Your task to perform on an android device: check out phone information Image 0: 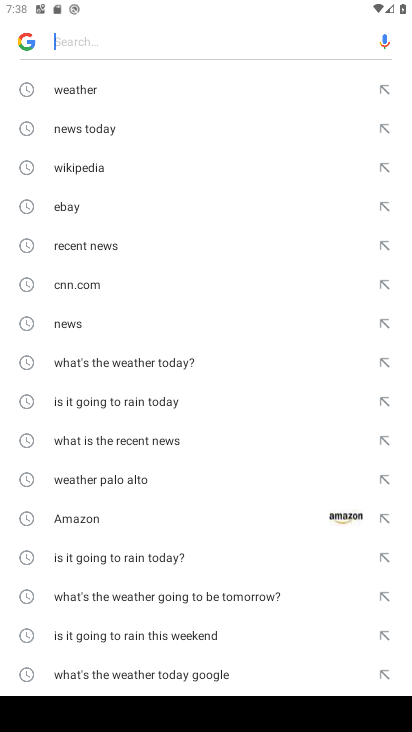
Step 0: press home button
Your task to perform on an android device: check out phone information Image 1: 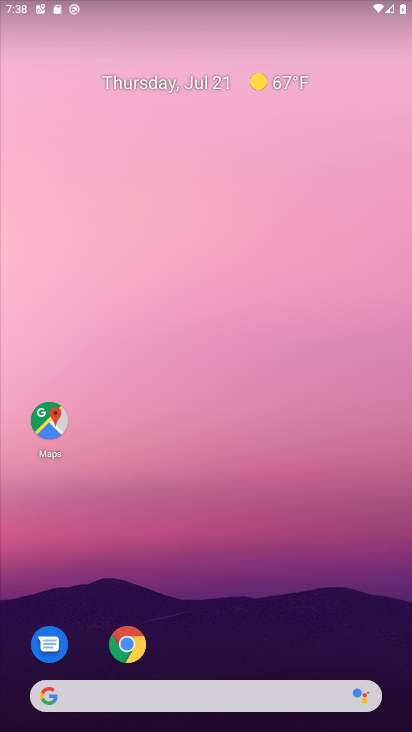
Step 1: drag from (209, 646) to (232, 6)
Your task to perform on an android device: check out phone information Image 2: 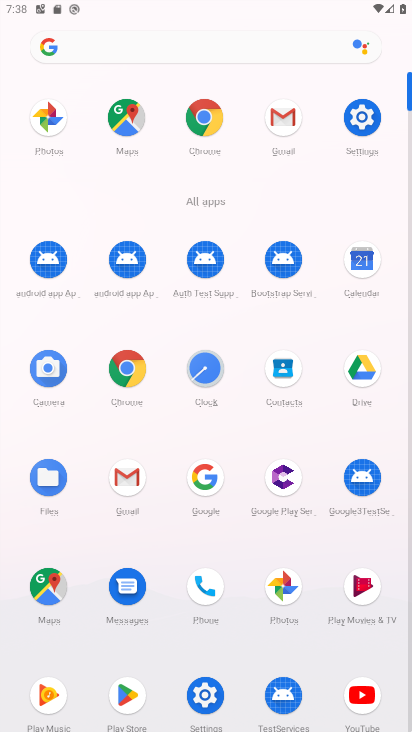
Step 2: click (209, 682)
Your task to perform on an android device: check out phone information Image 3: 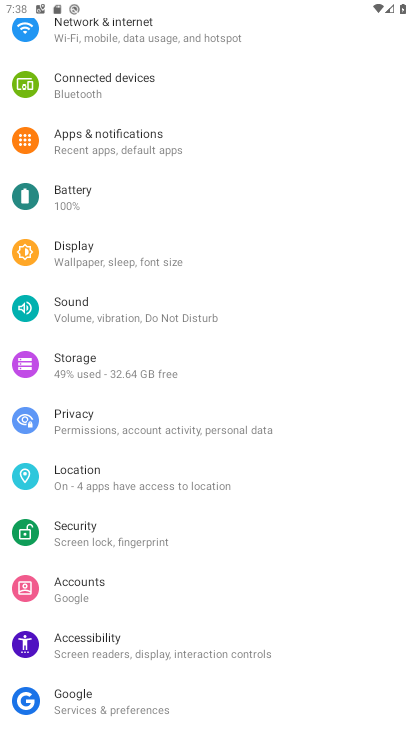
Step 3: drag from (115, 697) to (157, 396)
Your task to perform on an android device: check out phone information Image 4: 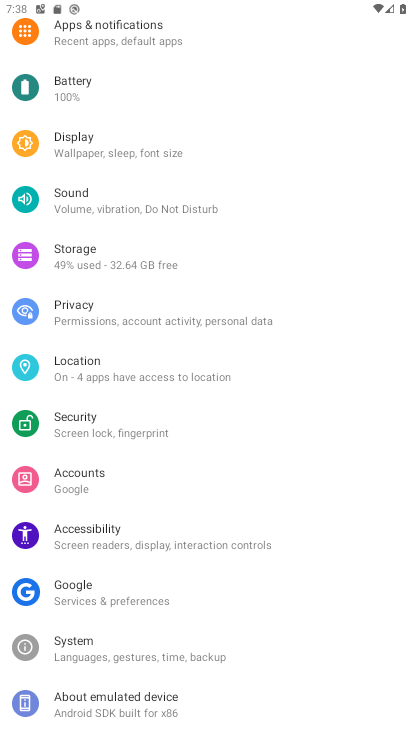
Step 4: click (101, 703)
Your task to perform on an android device: check out phone information Image 5: 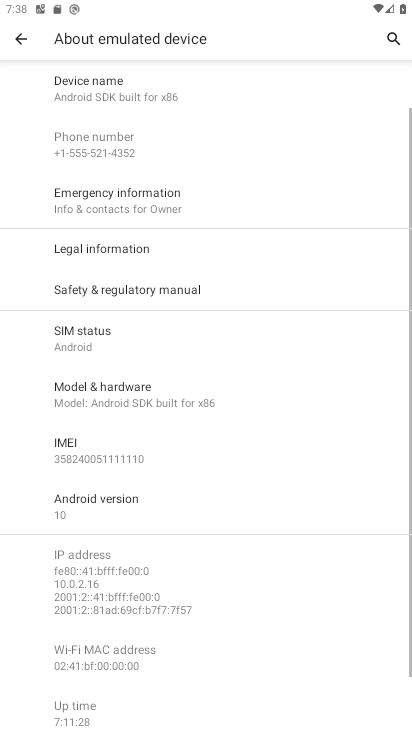
Step 5: task complete